Your task to perform on an android device: turn off location history Image 0: 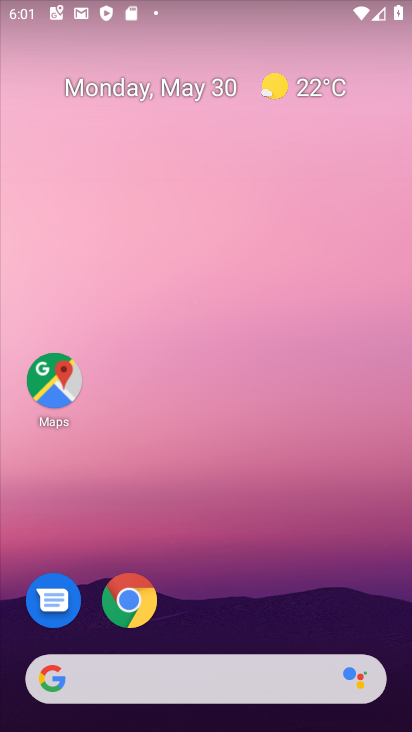
Step 0: press home button
Your task to perform on an android device: turn off location history Image 1: 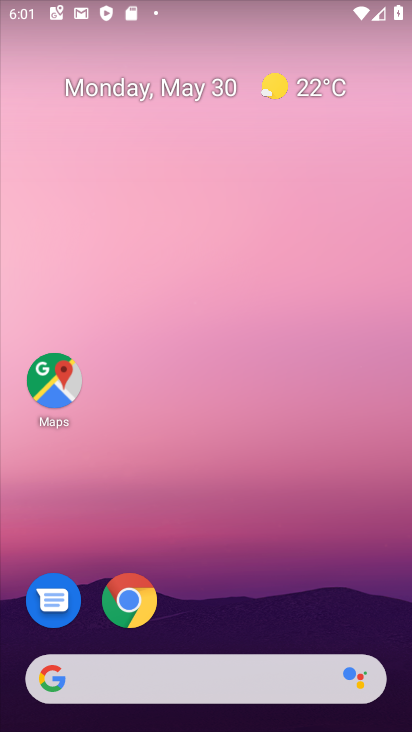
Step 1: drag from (245, 630) to (245, 52)
Your task to perform on an android device: turn off location history Image 2: 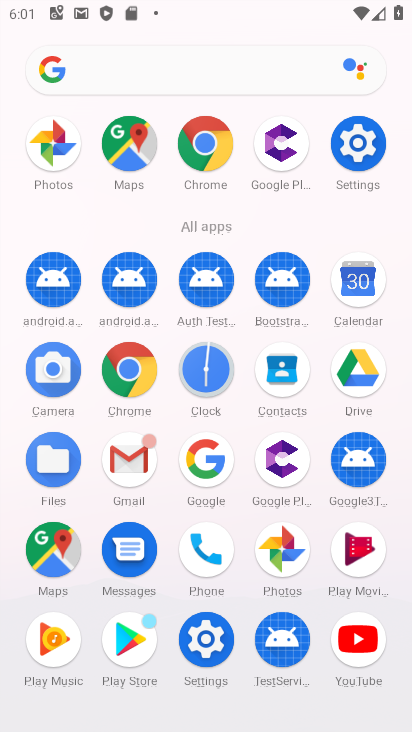
Step 2: click (352, 161)
Your task to perform on an android device: turn off location history Image 3: 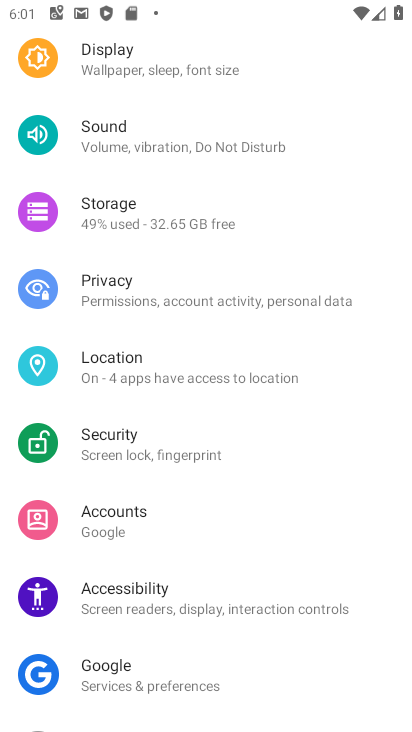
Step 3: click (108, 384)
Your task to perform on an android device: turn off location history Image 4: 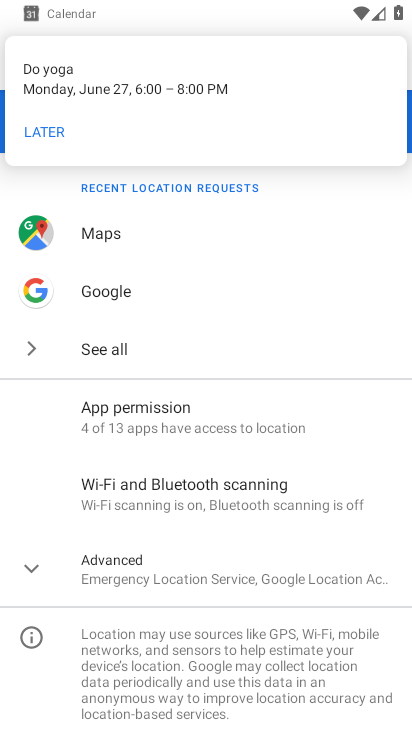
Step 4: click (107, 564)
Your task to perform on an android device: turn off location history Image 5: 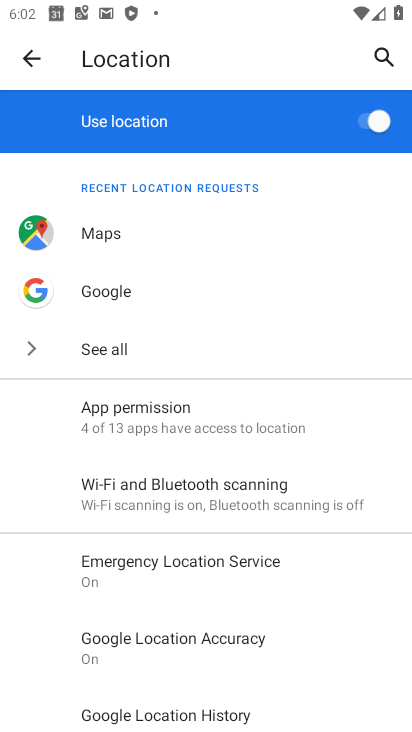
Step 5: drag from (261, 665) to (262, 497)
Your task to perform on an android device: turn off location history Image 6: 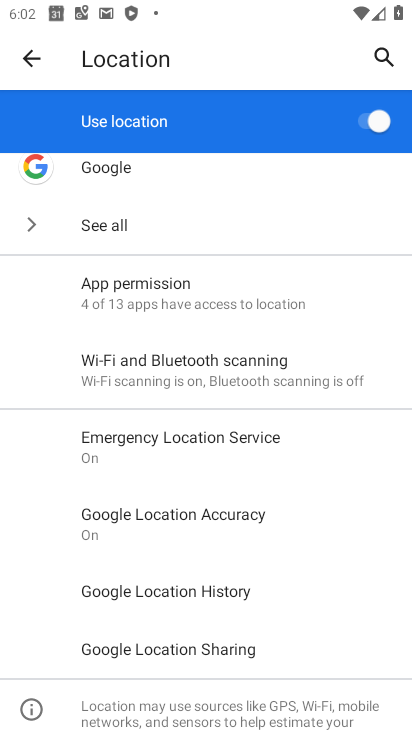
Step 6: click (201, 592)
Your task to perform on an android device: turn off location history Image 7: 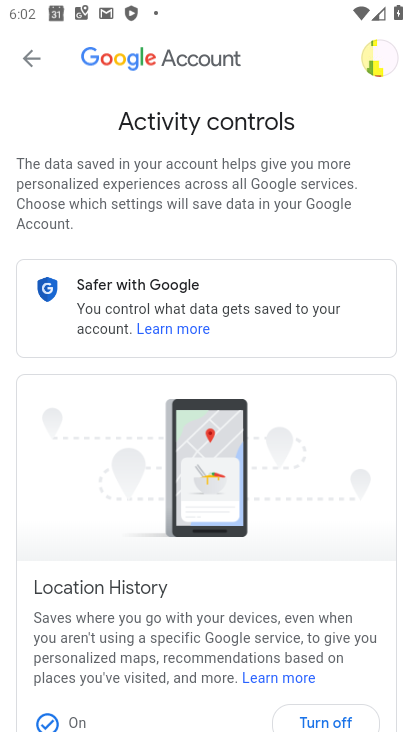
Step 7: drag from (277, 585) to (290, 405)
Your task to perform on an android device: turn off location history Image 8: 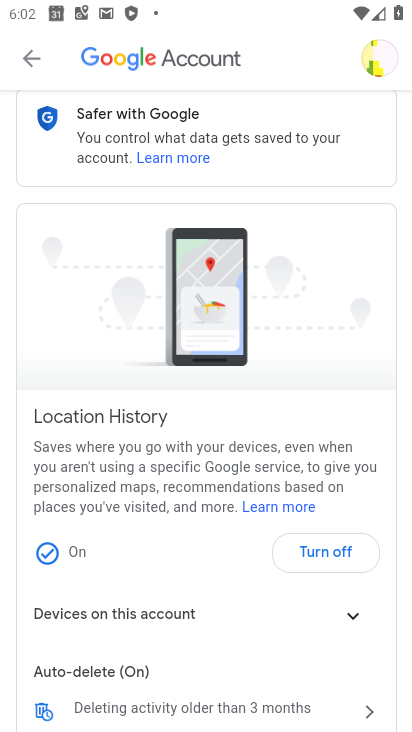
Step 8: drag from (247, 418) to (280, 203)
Your task to perform on an android device: turn off location history Image 9: 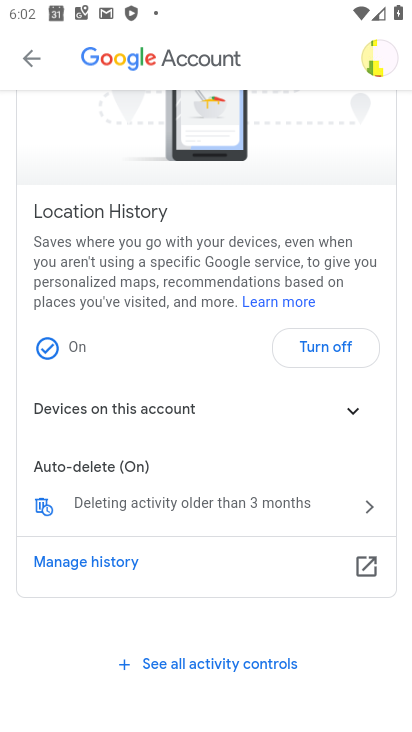
Step 9: click (318, 350)
Your task to perform on an android device: turn off location history Image 10: 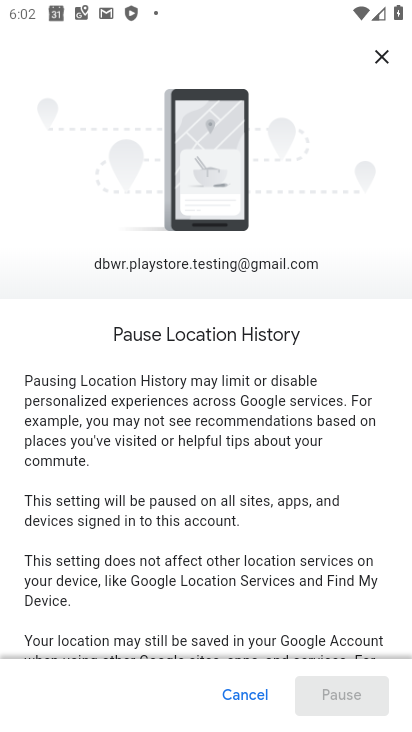
Step 10: drag from (333, 334) to (343, 77)
Your task to perform on an android device: turn off location history Image 11: 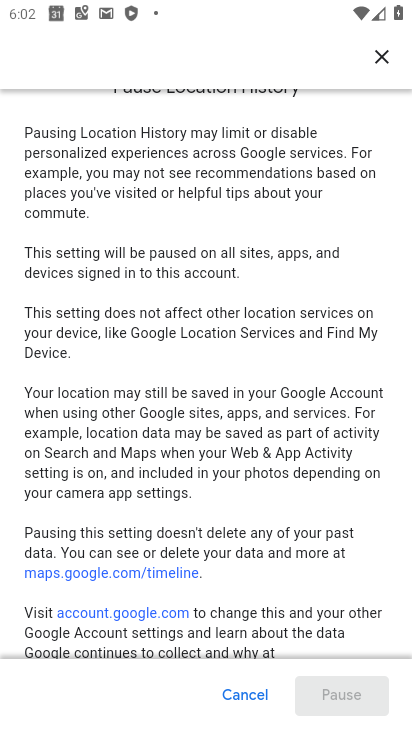
Step 11: drag from (301, 364) to (333, 106)
Your task to perform on an android device: turn off location history Image 12: 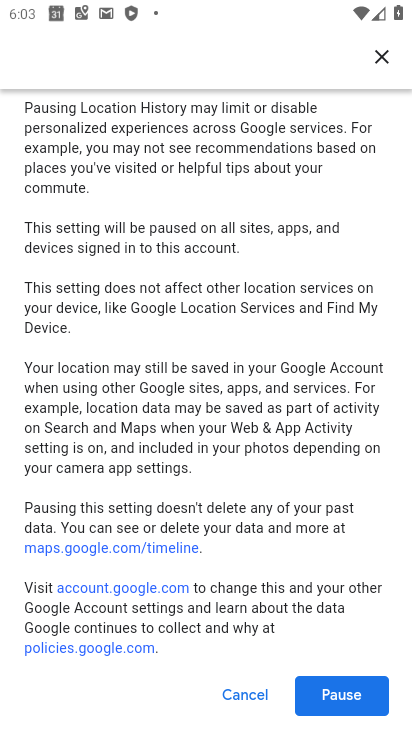
Step 12: click (335, 695)
Your task to perform on an android device: turn off location history Image 13: 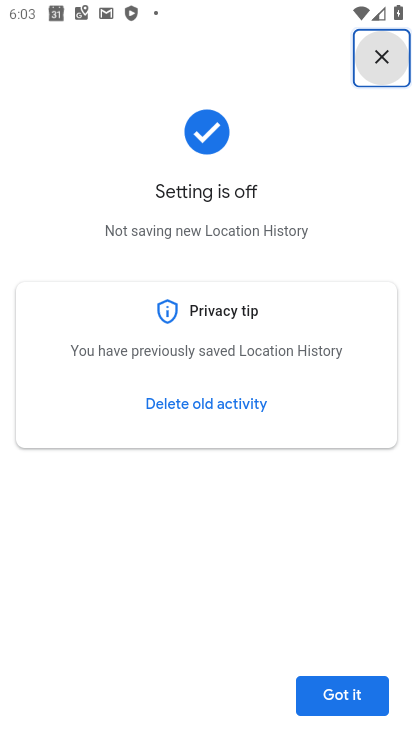
Step 13: click (356, 700)
Your task to perform on an android device: turn off location history Image 14: 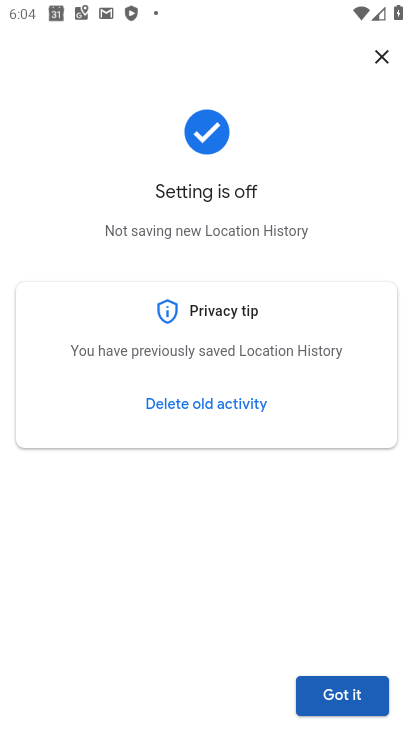
Step 14: task complete